Your task to perform on an android device: Add "jbl charge 4" to the cart on costco, then select checkout. Image 0: 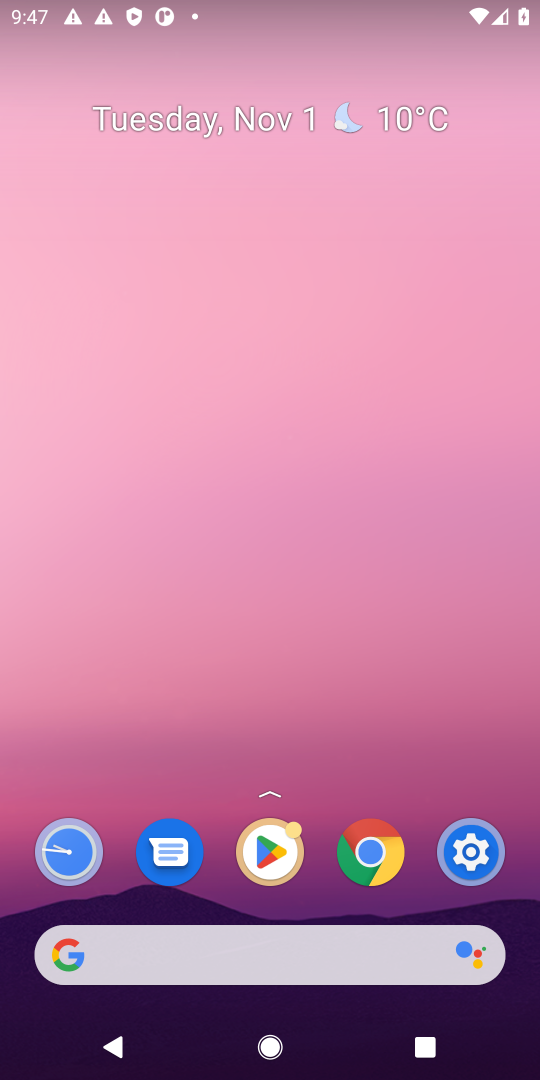
Step 0: press home button
Your task to perform on an android device: Add "jbl charge 4" to the cart on costco, then select checkout. Image 1: 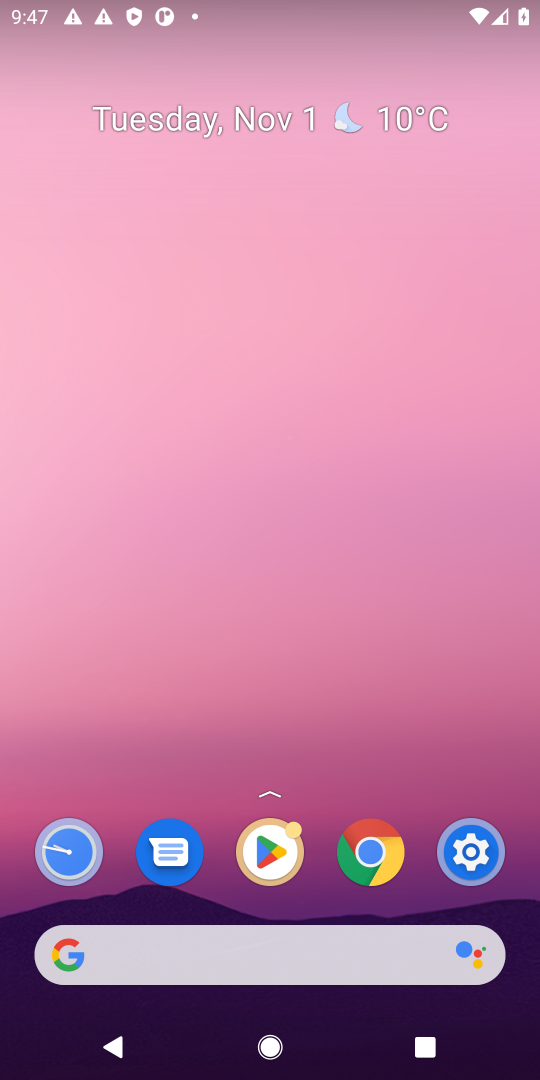
Step 1: click (68, 963)
Your task to perform on an android device: Add "jbl charge 4" to the cart on costco, then select checkout. Image 2: 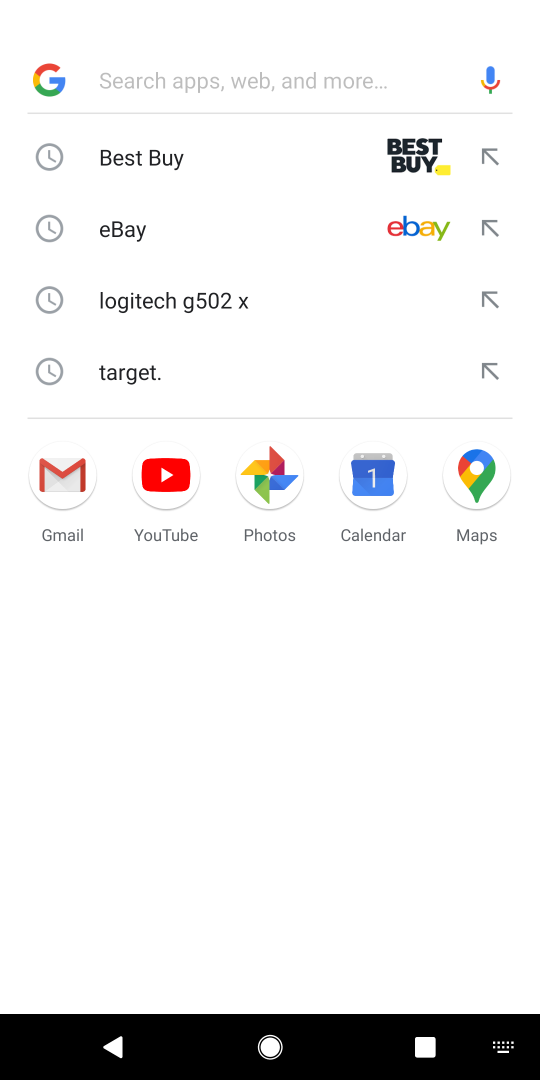
Step 2: type "costco"
Your task to perform on an android device: Add "jbl charge 4" to the cart on costco, then select checkout. Image 3: 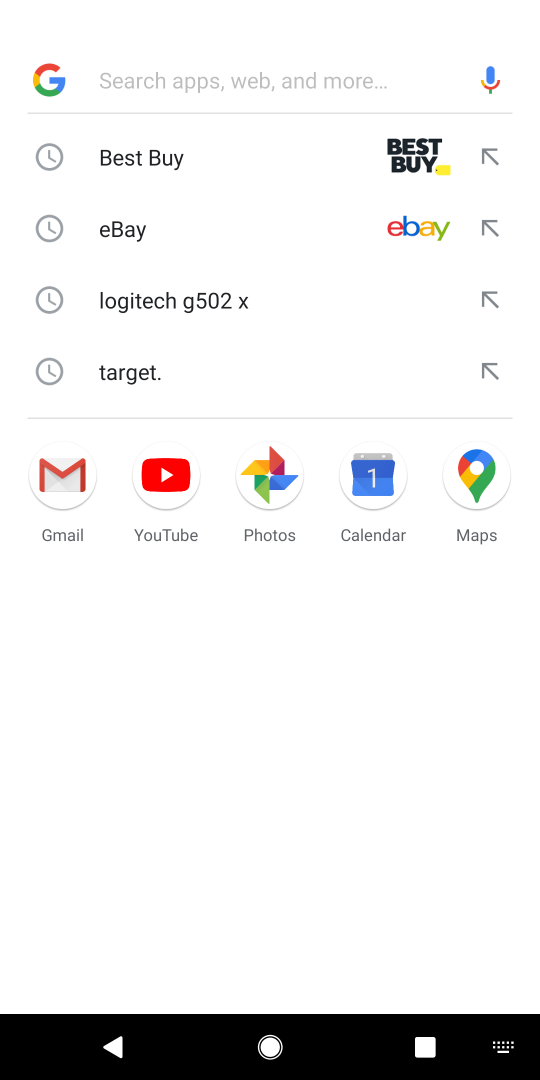
Step 3: click (124, 79)
Your task to perform on an android device: Add "jbl charge 4" to the cart on costco, then select checkout. Image 4: 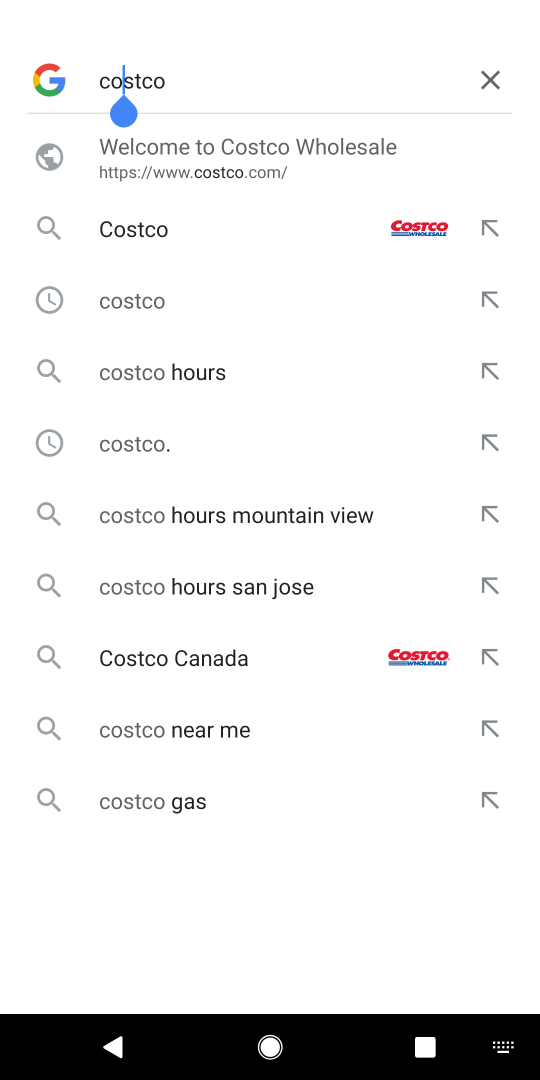
Step 4: press enter
Your task to perform on an android device: Add "jbl charge 4" to the cart on costco, then select checkout. Image 5: 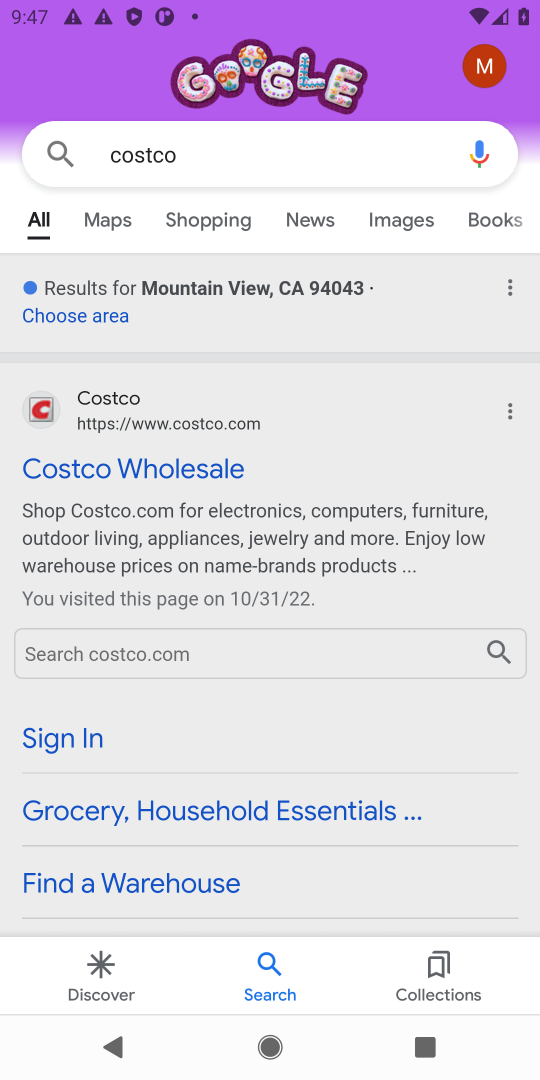
Step 5: click (112, 467)
Your task to perform on an android device: Add "jbl charge 4" to the cart on costco, then select checkout. Image 6: 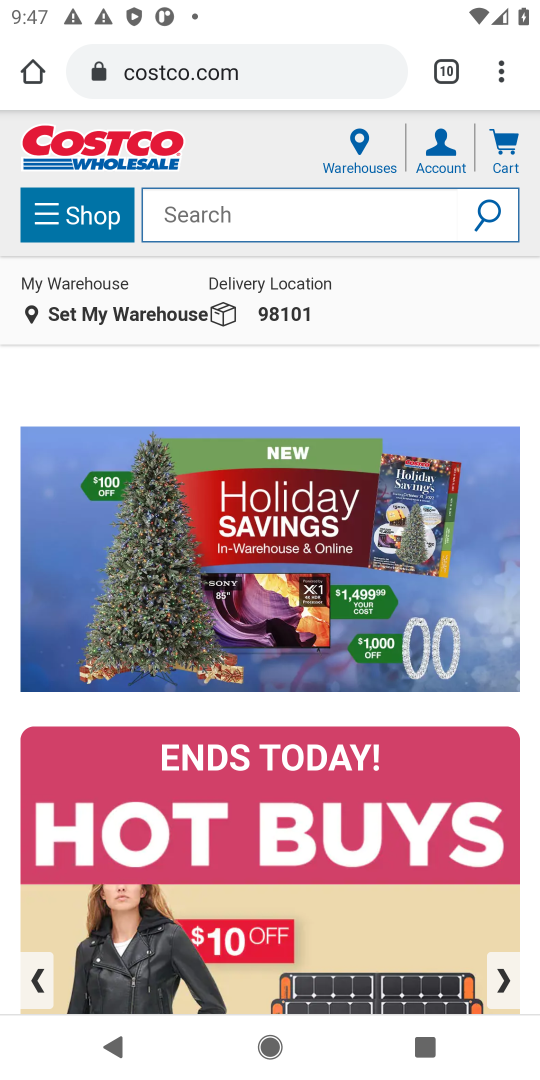
Step 6: click (243, 208)
Your task to perform on an android device: Add "jbl charge 4" to the cart on costco, then select checkout. Image 7: 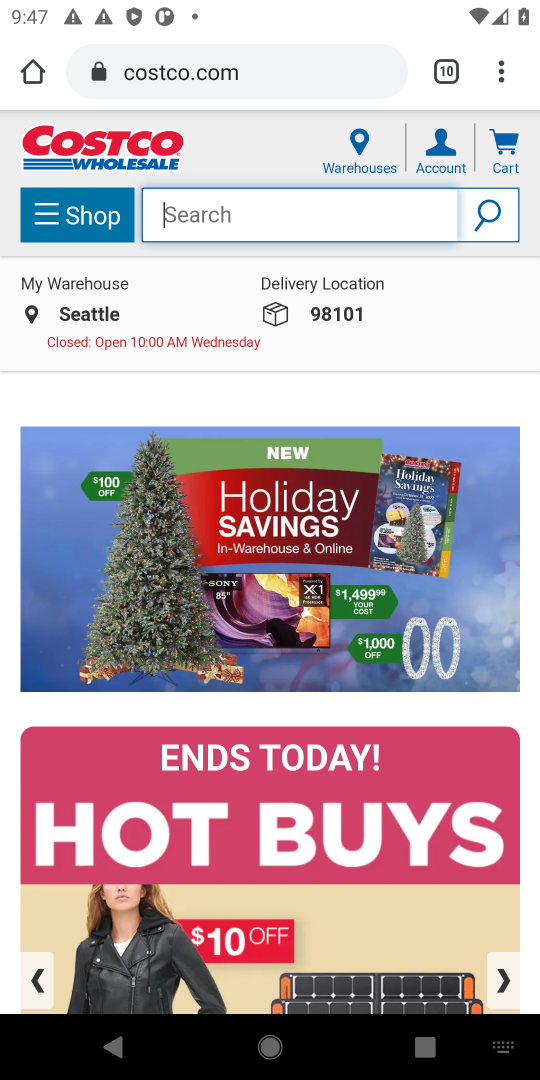
Step 7: type "jbl charge 4"
Your task to perform on an android device: Add "jbl charge 4" to the cart on costco, then select checkout. Image 8: 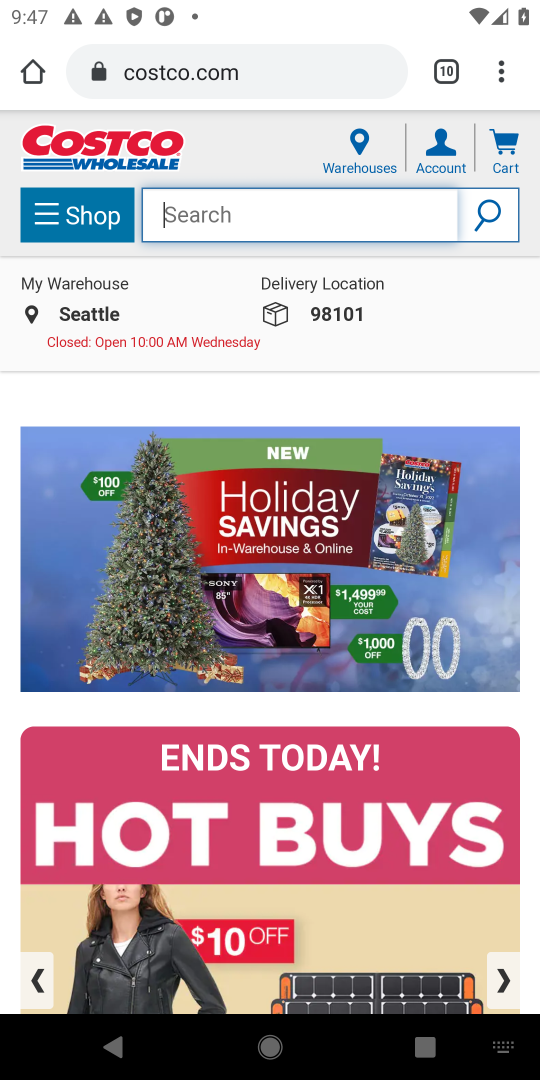
Step 8: click (225, 203)
Your task to perform on an android device: Add "jbl charge 4" to the cart on costco, then select checkout. Image 9: 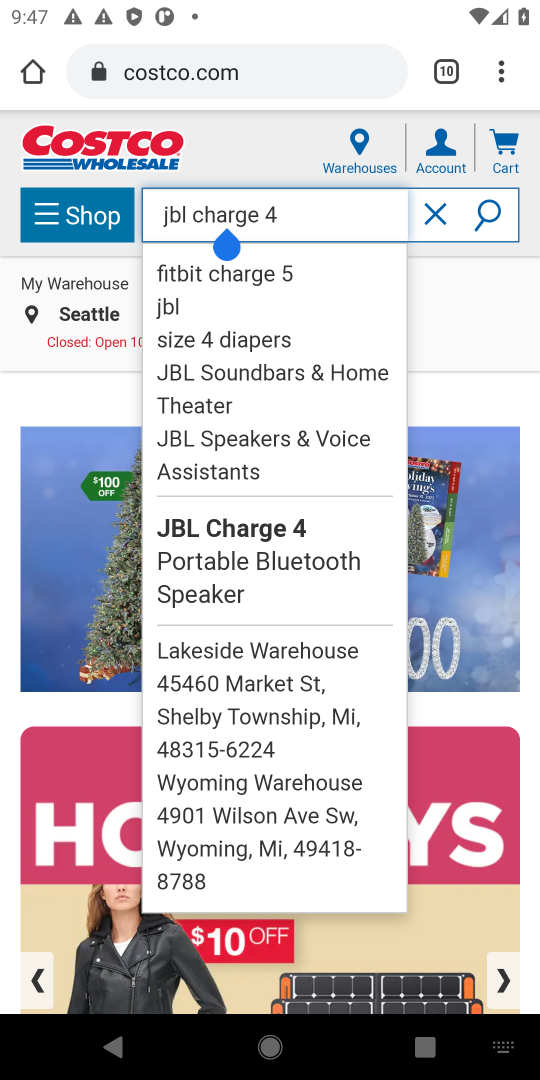
Step 9: press enter
Your task to perform on an android device: Add "jbl charge 4" to the cart on costco, then select checkout. Image 10: 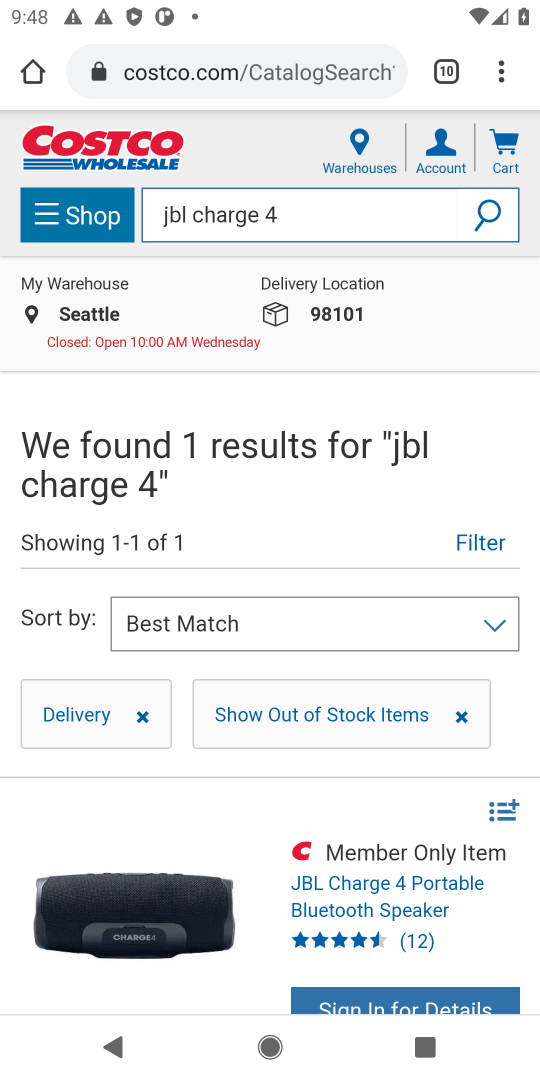
Step 10: drag from (314, 547) to (347, 320)
Your task to perform on an android device: Add "jbl charge 4" to the cart on costco, then select checkout. Image 11: 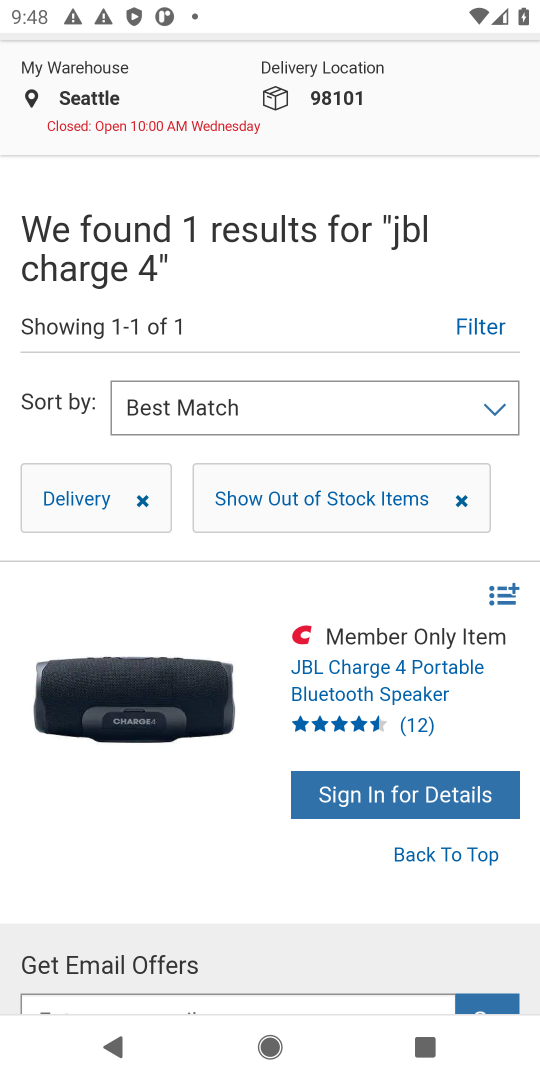
Step 11: click (297, 882)
Your task to perform on an android device: Add "jbl charge 4" to the cart on costco, then select checkout. Image 12: 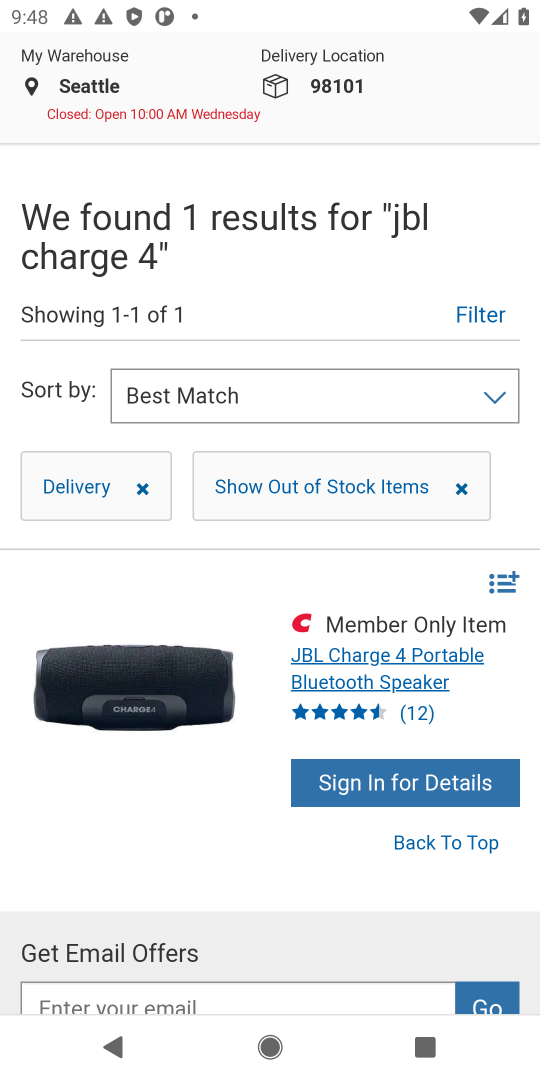
Step 12: click (340, 662)
Your task to perform on an android device: Add "jbl charge 4" to the cart on costco, then select checkout. Image 13: 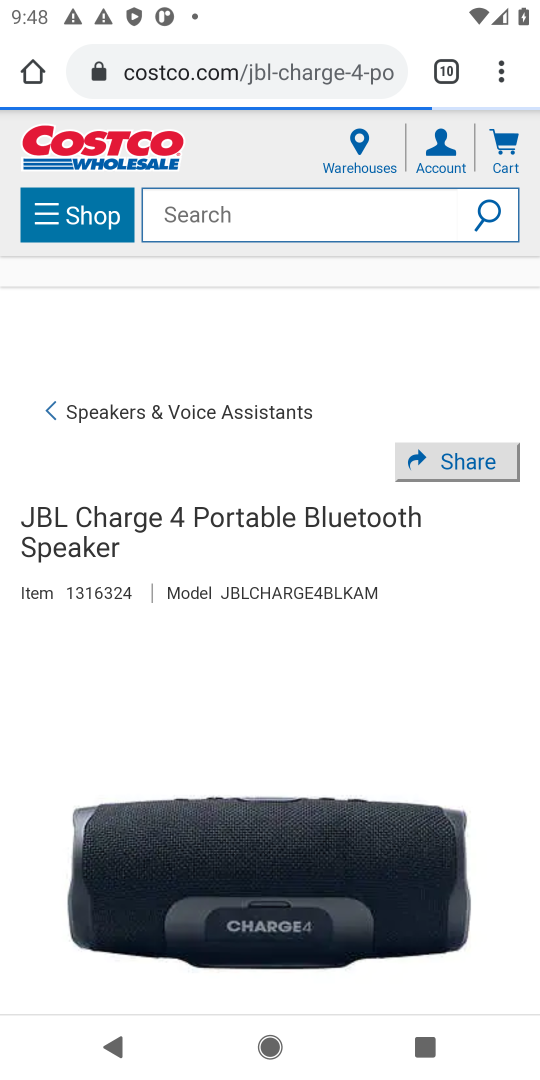
Step 13: drag from (487, 930) to (444, 364)
Your task to perform on an android device: Add "jbl charge 4" to the cart on costco, then select checkout. Image 14: 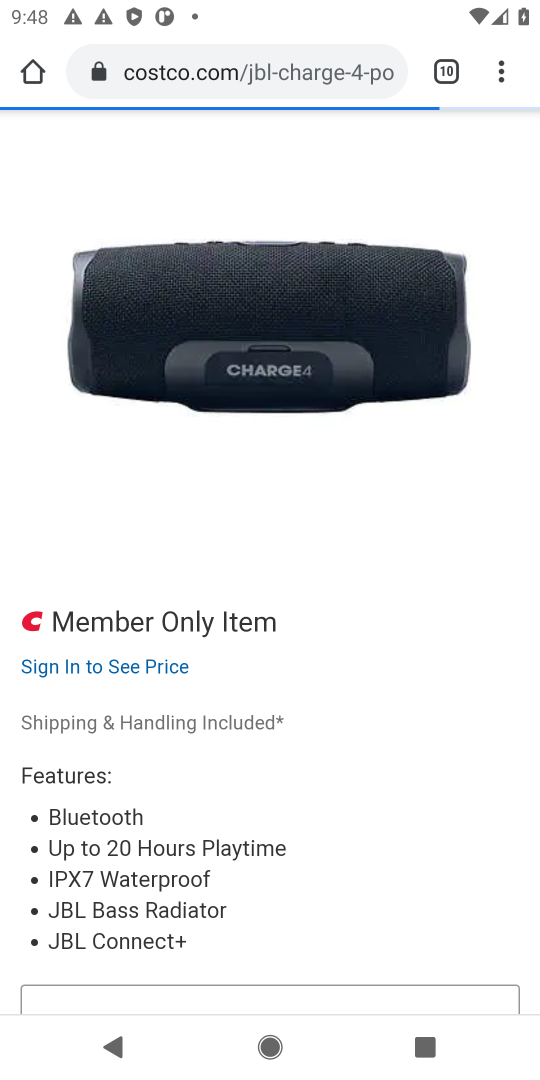
Step 14: drag from (407, 847) to (417, 287)
Your task to perform on an android device: Add "jbl charge 4" to the cart on costco, then select checkout. Image 15: 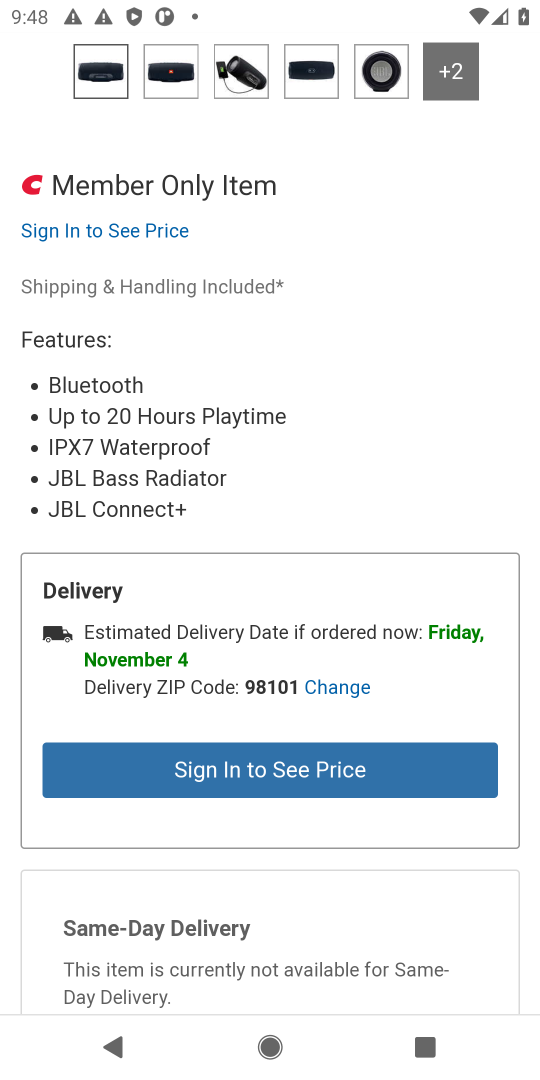
Step 15: drag from (427, 890) to (351, 506)
Your task to perform on an android device: Add "jbl charge 4" to the cart on costco, then select checkout. Image 16: 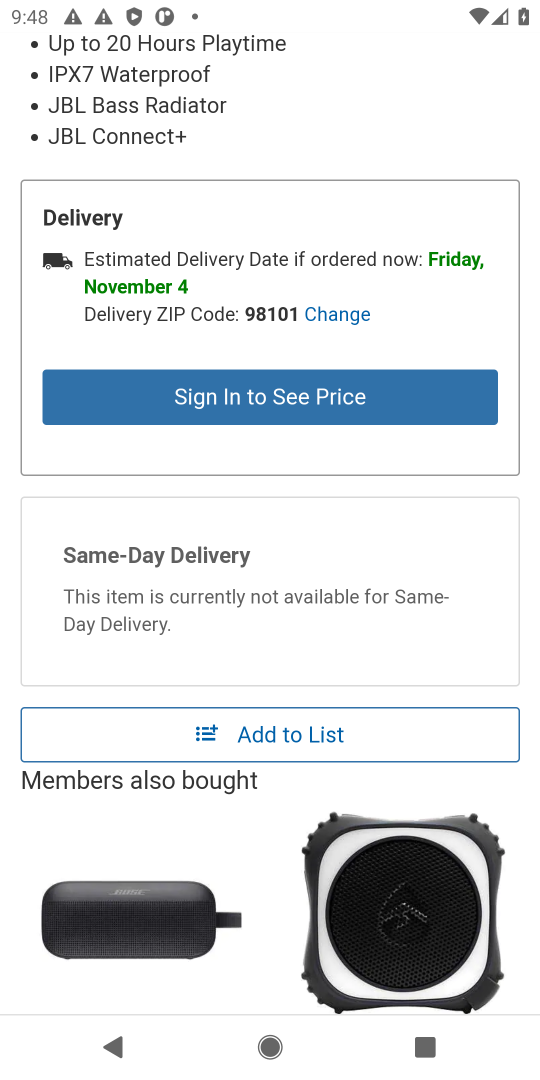
Step 16: click (286, 724)
Your task to perform on an android device: Add "jbl charge 4" to the cart on costco, then select checkout. Image 17: 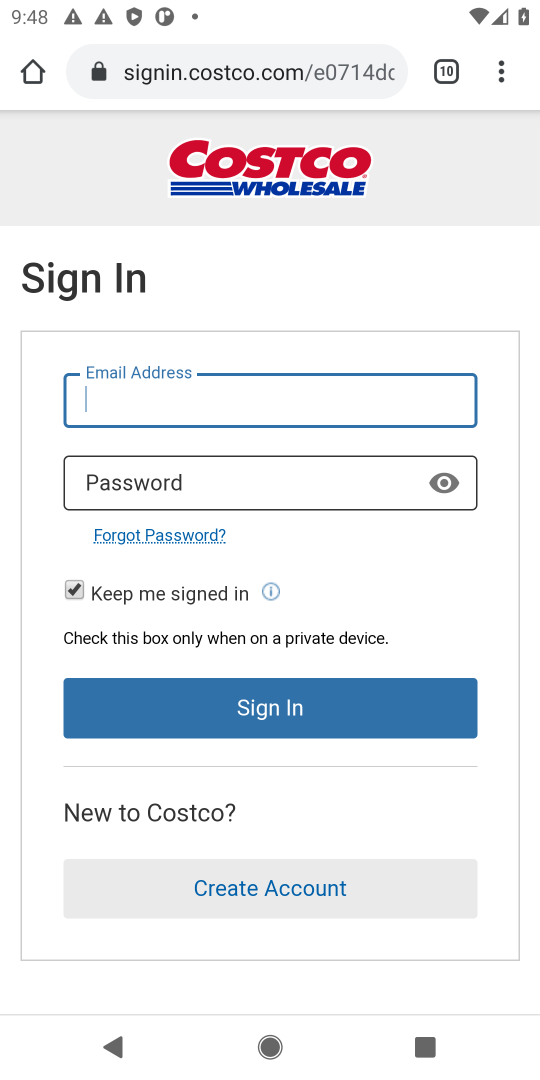
Step 17: task complete